Your task to perform on an android device: Open calendar and show me the fourth week of next month Image 0: 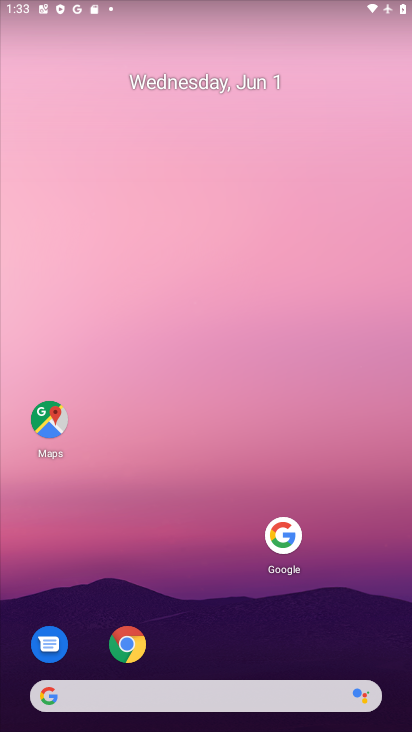
Step 0: drag from (198, 699) to (337, 190)
Your task to perform on an android device: Open calendar and show me the fourth week of next month Image 1: 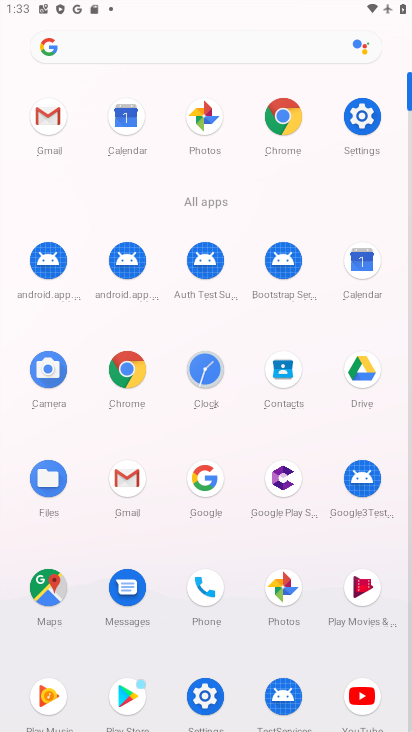
Step 1: click (358, 268)
Your task to perform on an android device: Open calendar and show me the fourth week of next month Image 2: 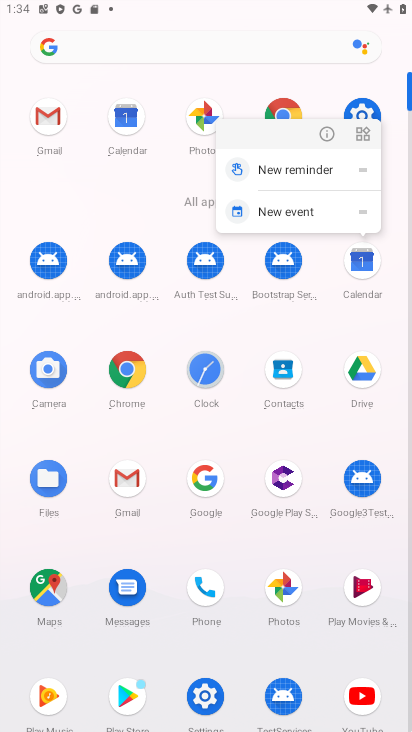
Step 2: click (365, 267)
Your task to perform on an android device: Open calendar and show me the fourth week of next month Image 3: 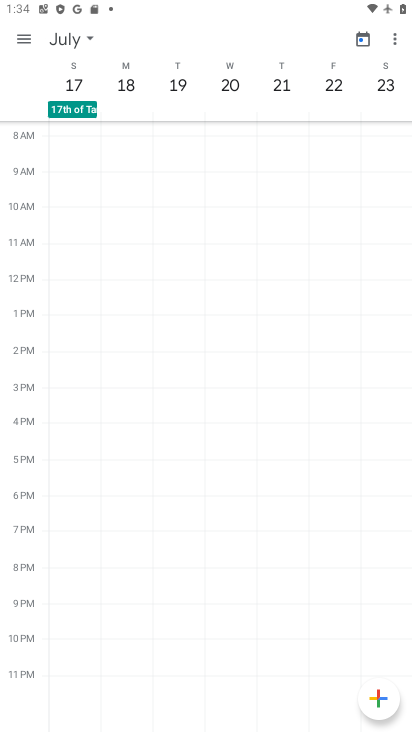
Step 3: click (74, 41)
Your task to perform on an android device: Open calendar and show me the fourth week of next month Image 4: 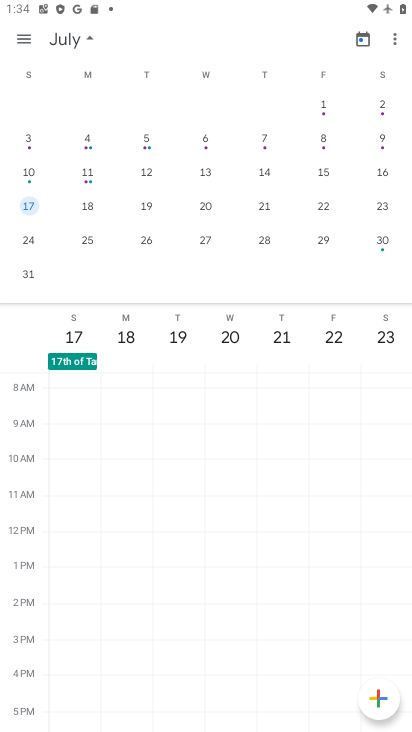
Step 4: click (35, 234)
Your task to perform on an android device: Open calendar and show me the fourth week of next month Image 5: 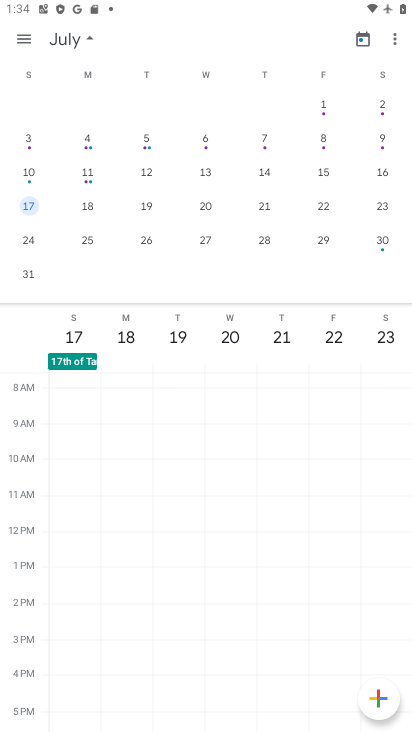
Step 5: click (27, 244)
Your task to perform on an android device: Open calendar and show me the fourth week of next month Image 6: 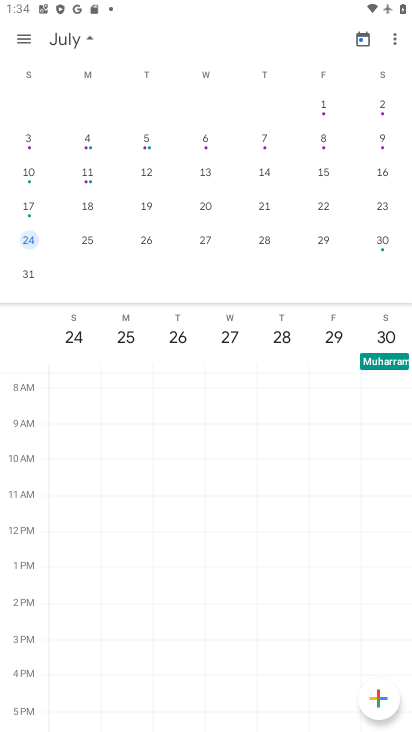
Step 6: click (17, 37)
Your task to perform on an android device: Open calendar and show me the fourth week of next month Image 7: 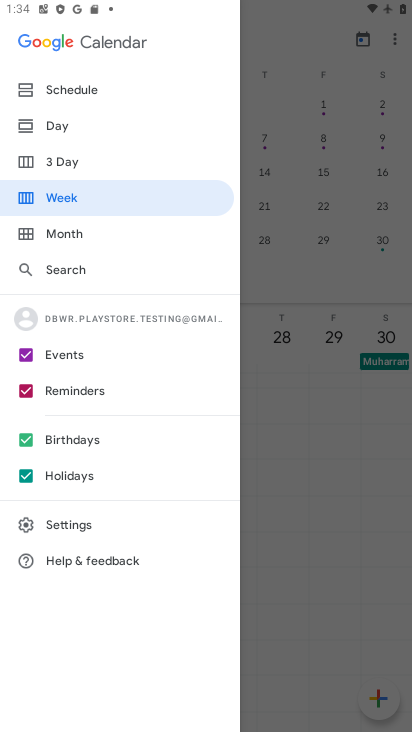
Step 7: click (78, 201)
Your task to perform on an android device: Open calendar and show me the fourth week of next month Image 8: 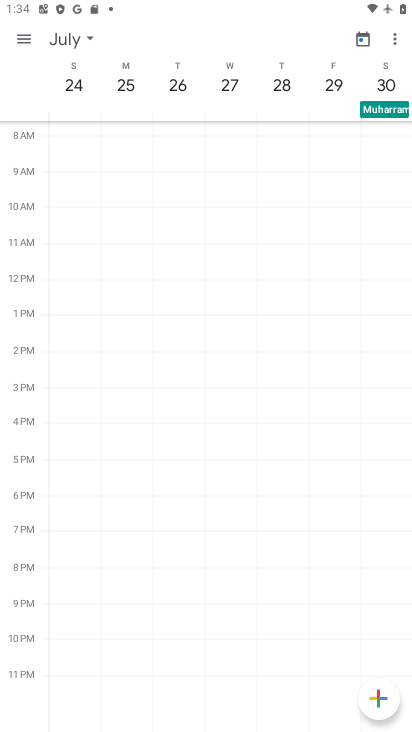
Step 8: task complete